Your task to perform on an android device: Open the calendar and show me this week's events Image 0: 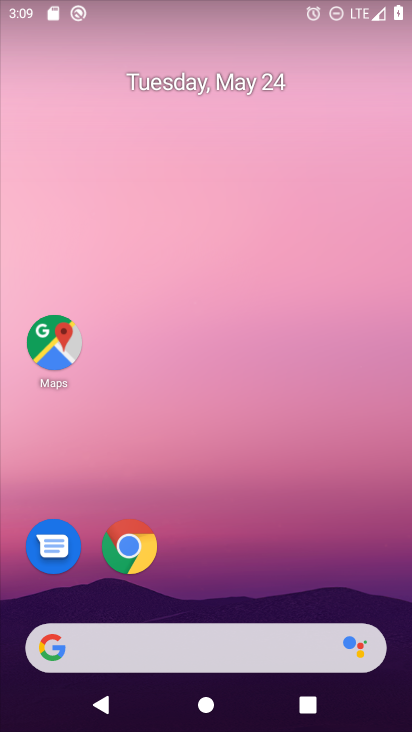
Step 0: drag from (132, 621) to (176, 137)
Your task to perform on an android device: Open the calendar and show me this week's events Image 1: 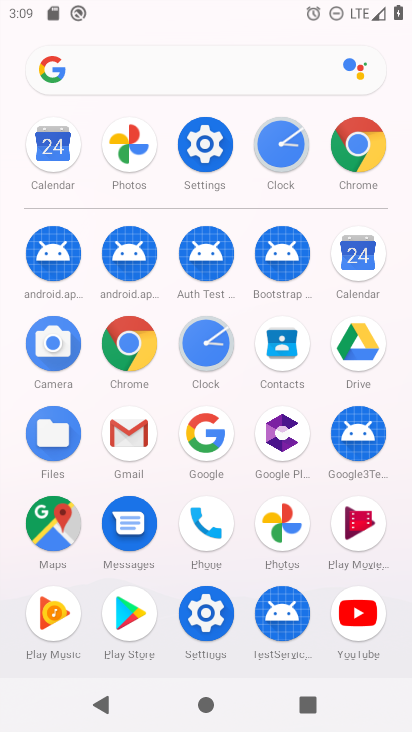
Step 1: click (360, 267)
Your task to perform on an android device: Open the calendar and show me this week's events Image 2: 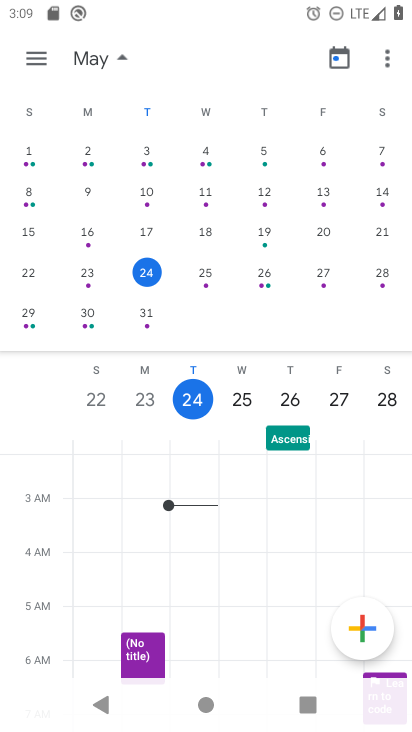
Step 2: click (382, 275)
Your task to perform on an android device: Open the calendar and show me this week's events Image 3: 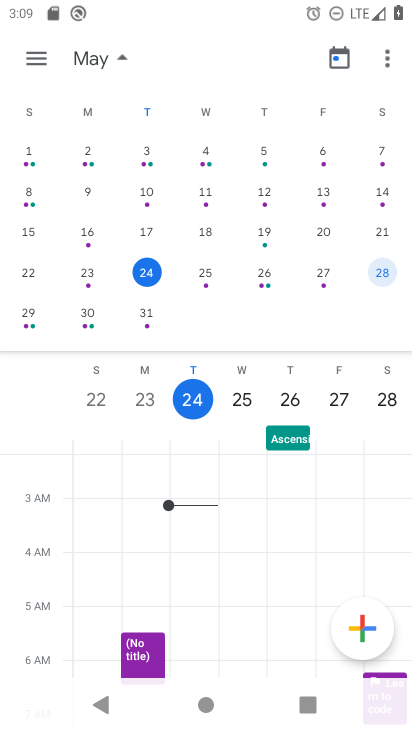
Step 3: click (382, 275)
Your task to perform on an android device: Open the calendar and show me this week's events Image 4: 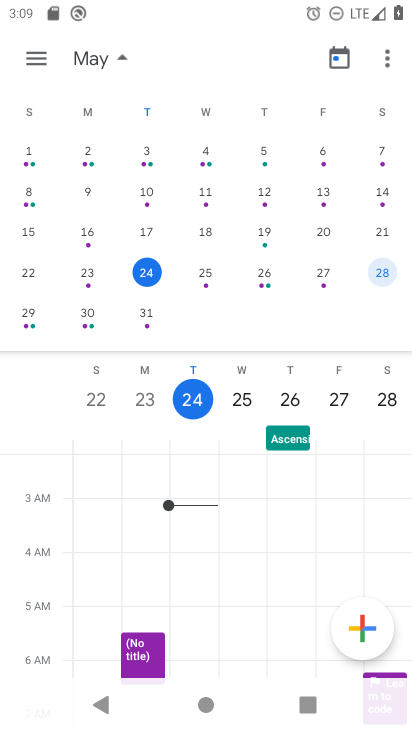
Step 4: click (382, 275)
Your task to perform on an android device: Open the calendar and show me this week's events Image 5: 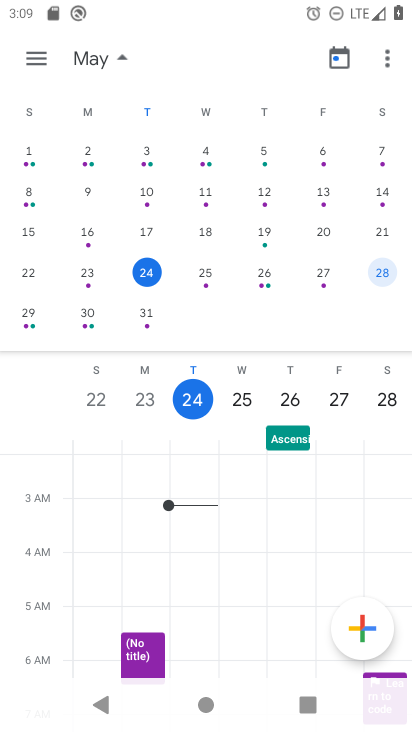
Step 5: click (385, 395)
Your task to perform on an android device: Open the calendar and show me this week's events Image 6: 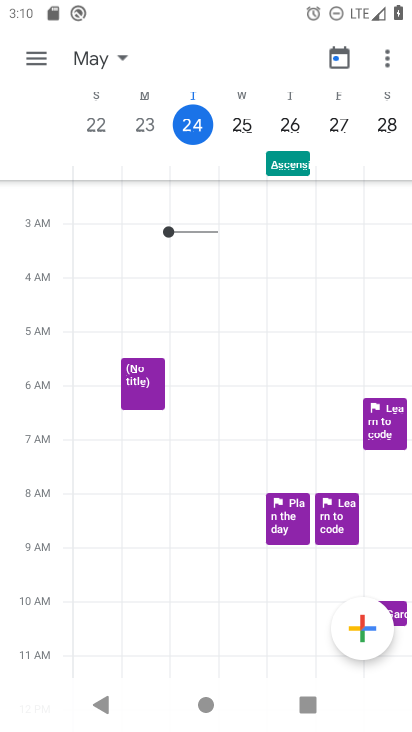
Step 6: click (388, 115)
Your task to perform on an android device: Open the calendar and show me this week's events Image 7: 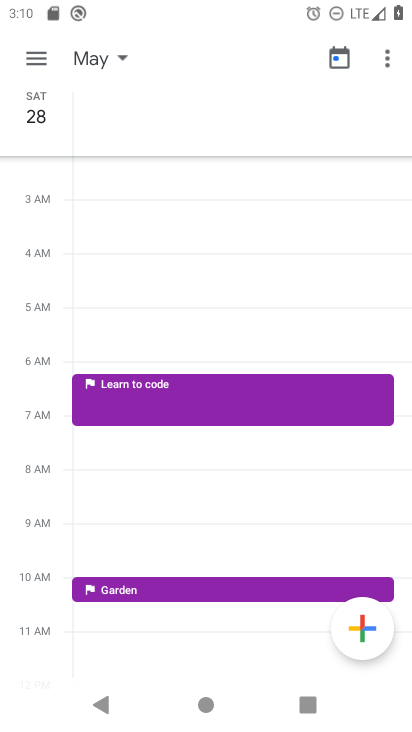
Step 7: task complete